Your task to perform on an android device: Turn on the flashlight Image 0: 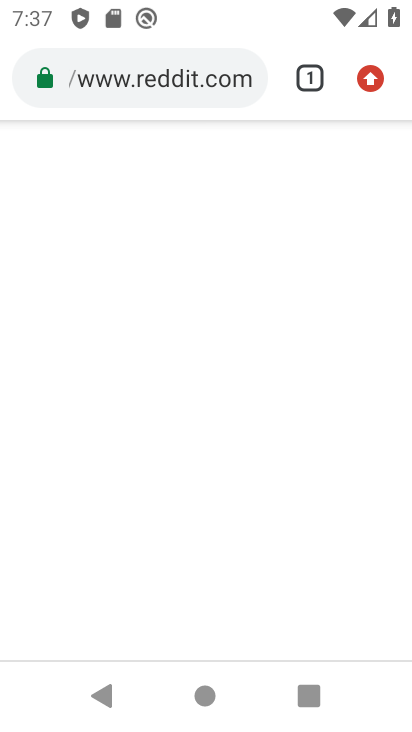
Step 0: press back button
Your task to perform on an android device: Turn on the flashlight Image 1: 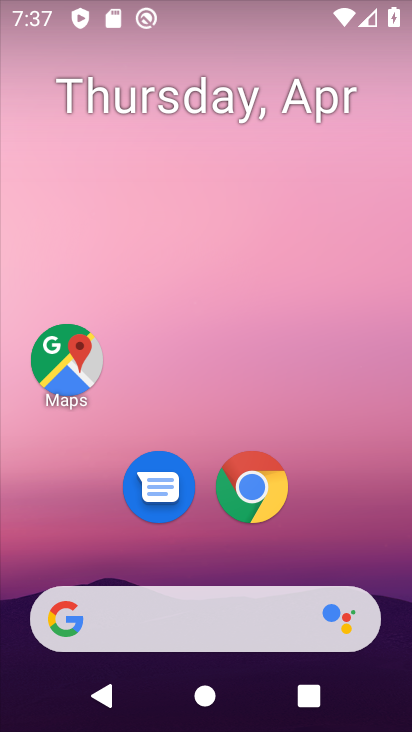
Step 1: drag from (326, 529) to (260, 234)
Your task to perform on an android device: Turn on the flashlight Image 2: 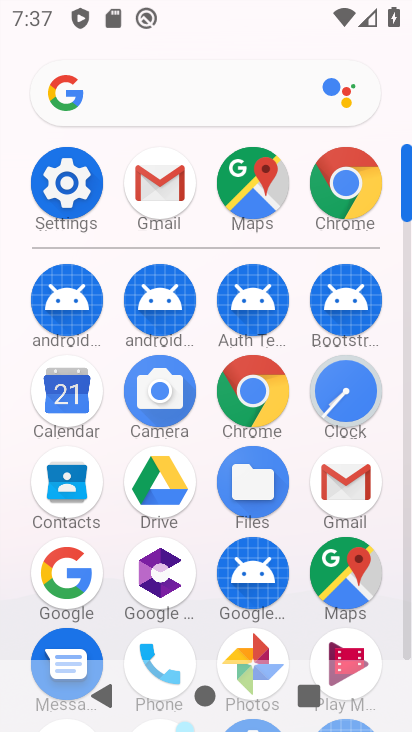
Step 2: click (71, 188)
Your task to perform on an android device: Turn on the flashlight Image 3: 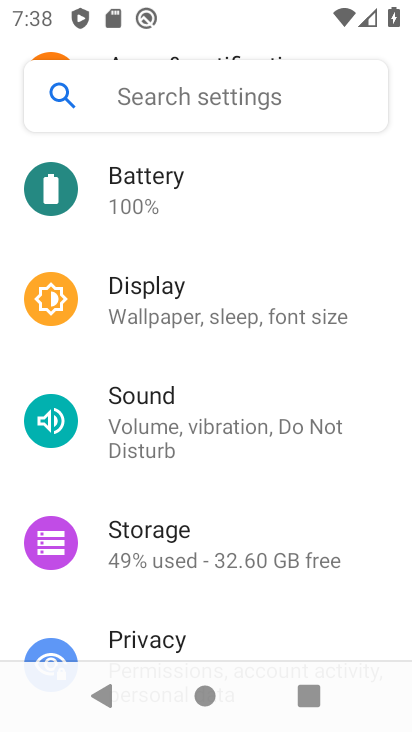
Step 3: task complete